Your task to perform on an android device: toggle airplane mode Image 0: 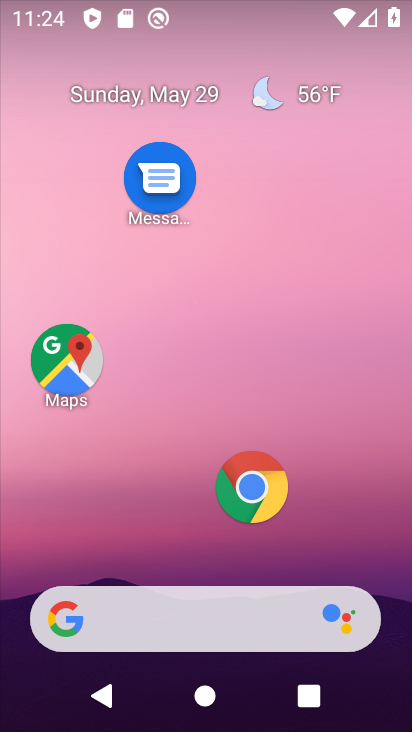
Step 0: drag from (151, 559) to (146, 9)
Your task to perform on an android device: toggle airplane mode Image 1: 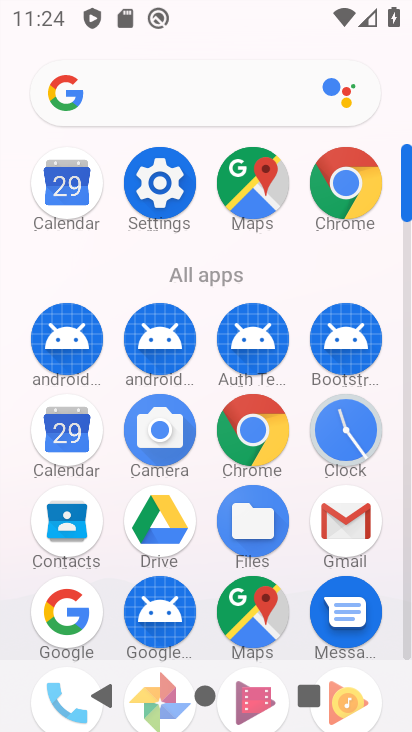
Step 1: click (164, 179)
Your task to perform on an android device: toggle airplane mode Image 2: 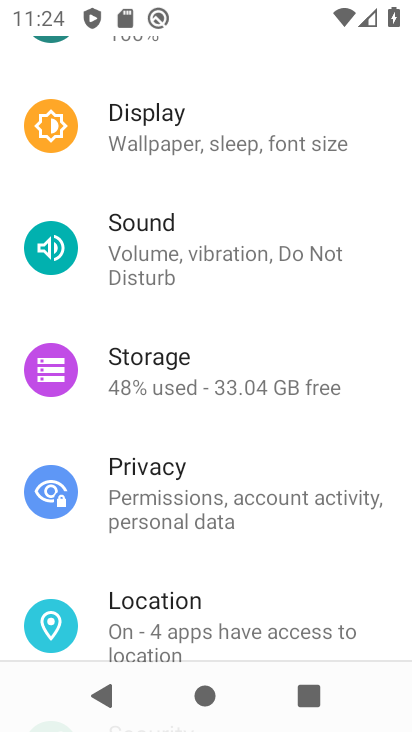
Step 2: drag from (197, 187) to (252, 479)
Your task to perform on an android device: toggle airplane mode Image 3: 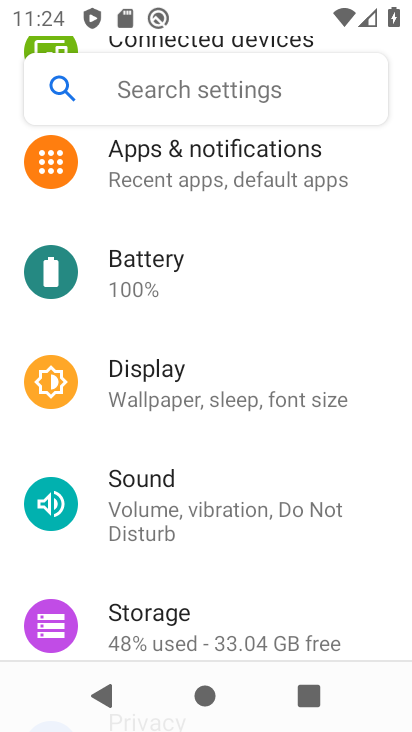
Step 3: drag from (231, 192) to (248, 612)
Your task to perform on an android device: toggle airplane mode Image 4: 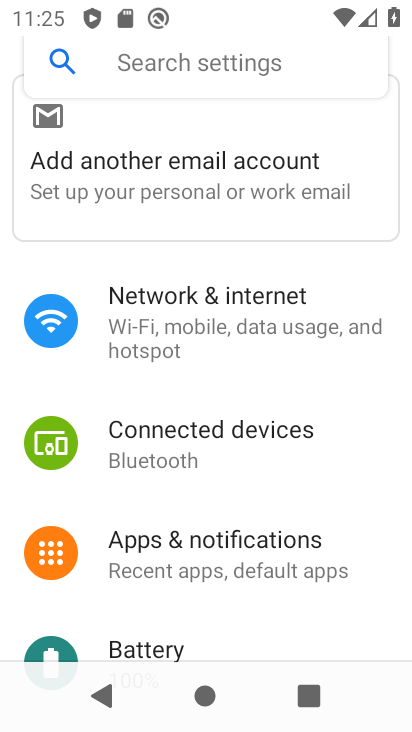
Step 4: click (192, 341)
Your task to perform on an android device: toggle airplane mode Image 5: 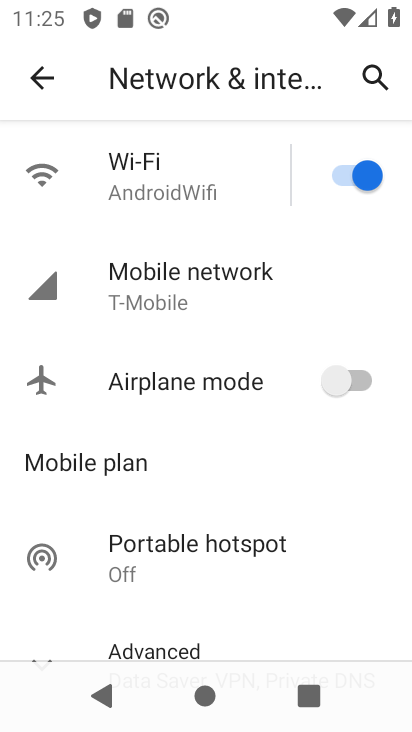
Step 5: click (352, 379)
Your task to perform on an android device: toggle airplane mode Image 6: 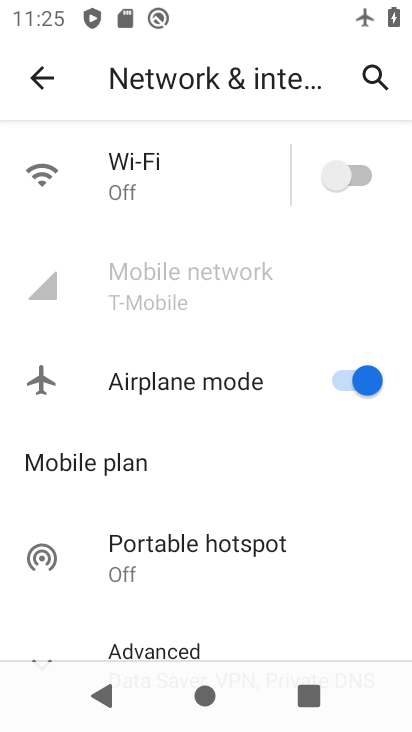
Step 6: task complete